Your task to perform on an android device: Go to wifi settings Image 0: 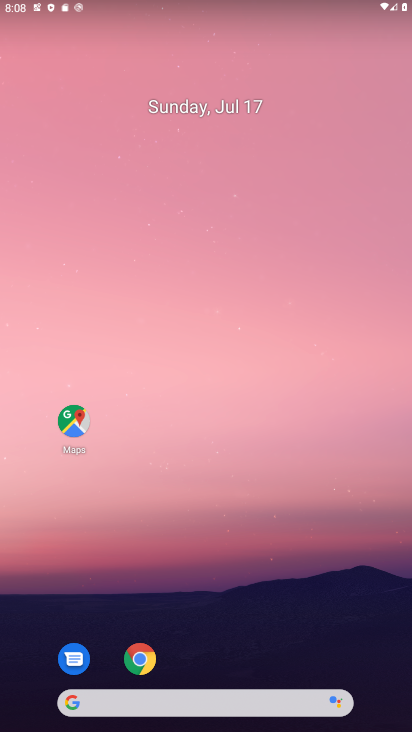
Step 0: drag from (199, 670) to (237, 210)
Your task to perform on an android device: Go to wifi settings Image 1: 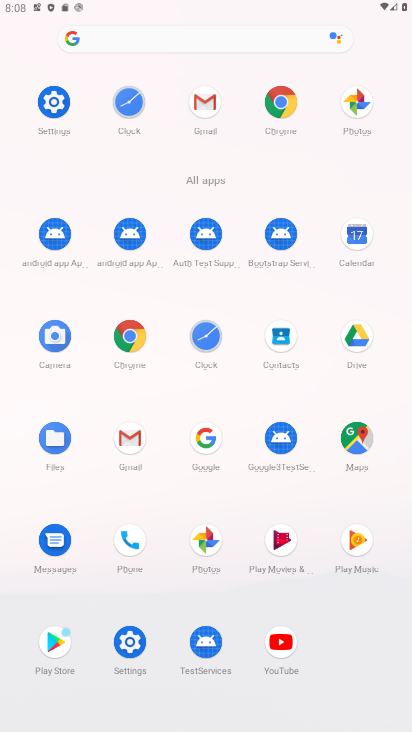
Step 1: click (65, 101)
Your task to perform on an android device: Go to wifi settings Image 2: 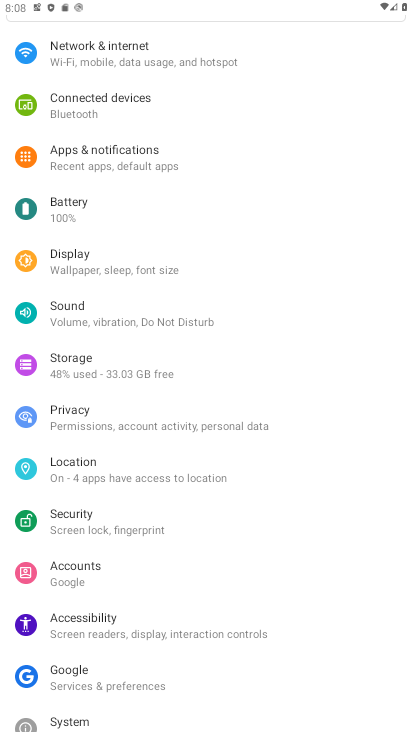
Step 2: drag from (147, 174) to (186, 449)
Your task to perform on an android device: Go to wifi settings Image 3: 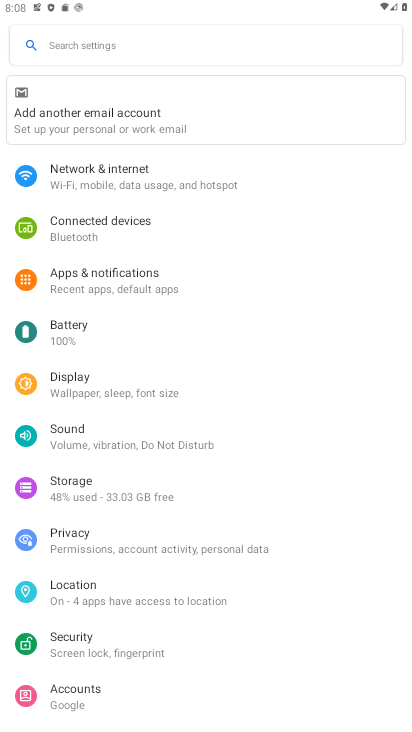
Step 3: click (114, 163)
Your task to perform on an android device: Go to wifi settings Image 4: 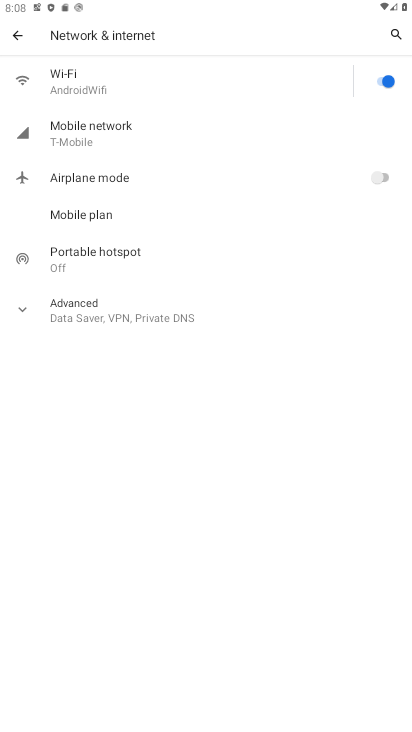
Step 4: click (123, 80)
Your task to perform on an android device: Go to wifi settings Image 5: 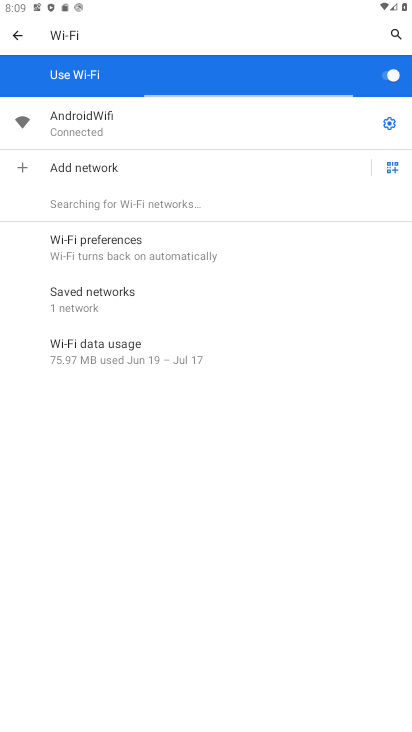
Step 5: task complete